Your task to perform on an android device: Open internet settings Image 0: 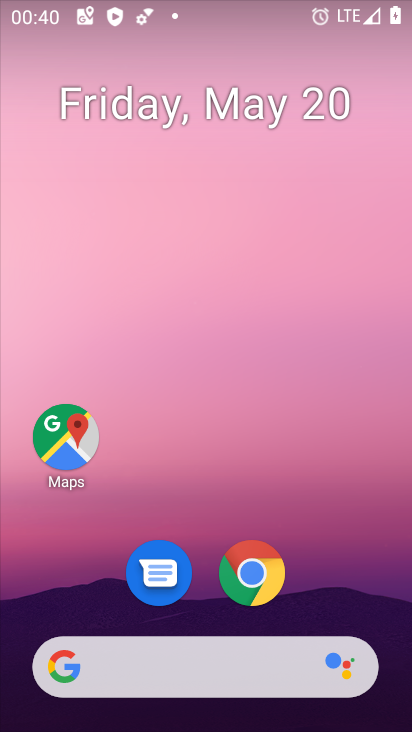
Step 0: drag from (195, 616) to (210, 213)
Your task to perform on an android device: Open internet settings Image 1: 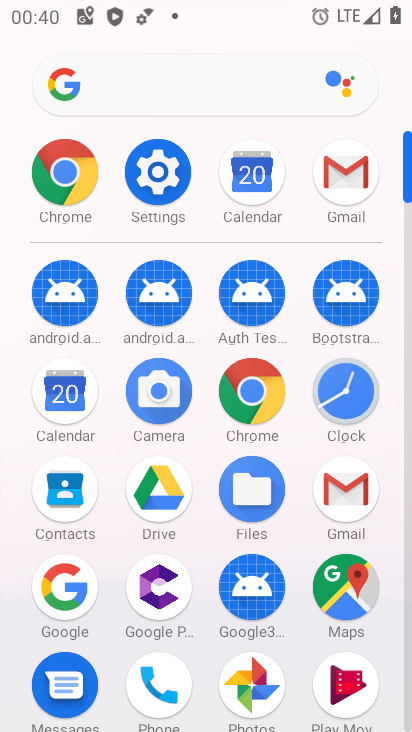
Step 1: click (178, 172)
Your task to perform on an android device: Open internet settings Image 2: 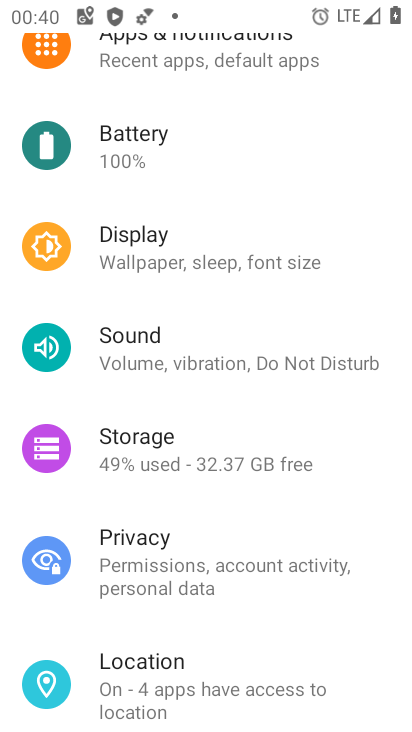
Step 2: drag from (178, 173) to (222, 543)
Your task to perform on an android device: Open internet settings Image 3: 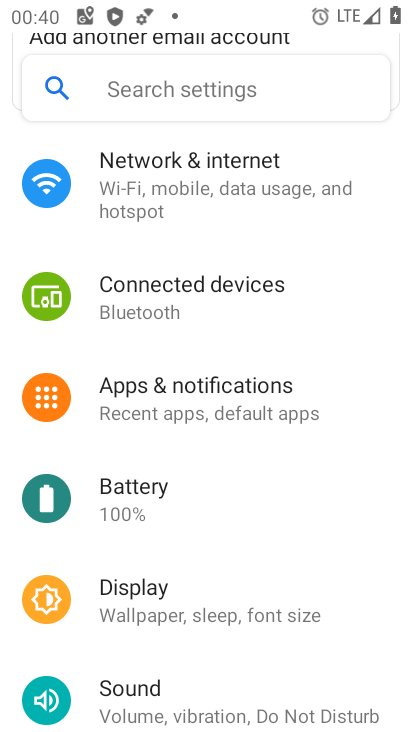
Step 3: click (202, 193)
Your task to perform on an android device: Open internet settings Image 4: 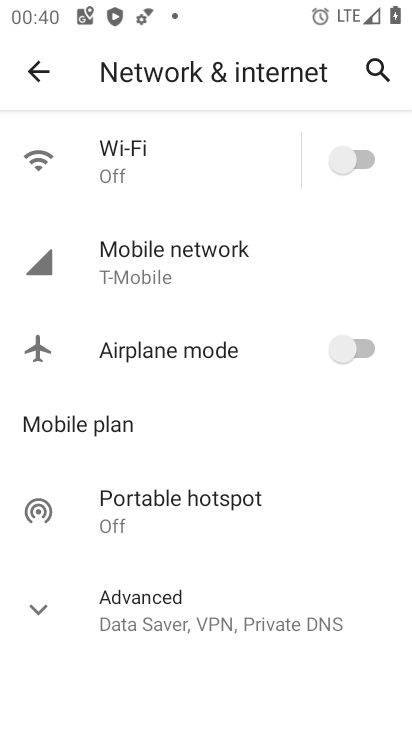
Step 4: click (170, 178)
Your task to perform on an android device: Open internet settings Image 5: 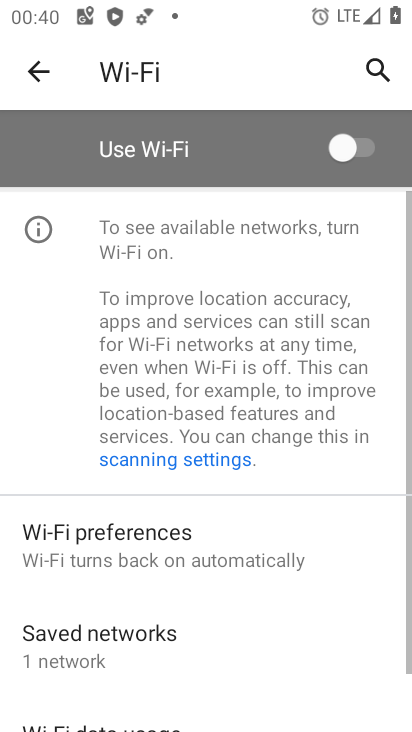
Step 5: click (233, 285)
Your task to perform on an android device: Open internet settings Image 6: 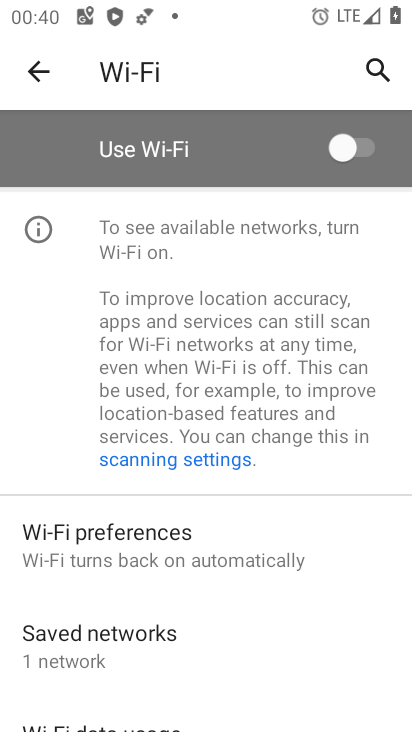
Step 6: task complete